Your task to perform on an android device: Go to ESPN.com Image 0: 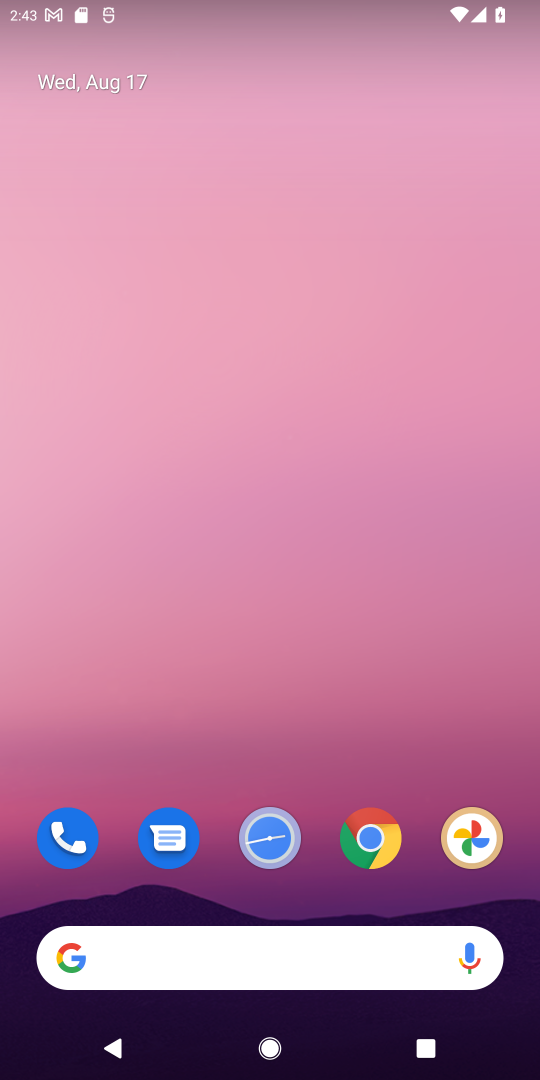
Step 0: click (342, 838)
Your task to perform on an android device: Go to ESPN.com Image 1: 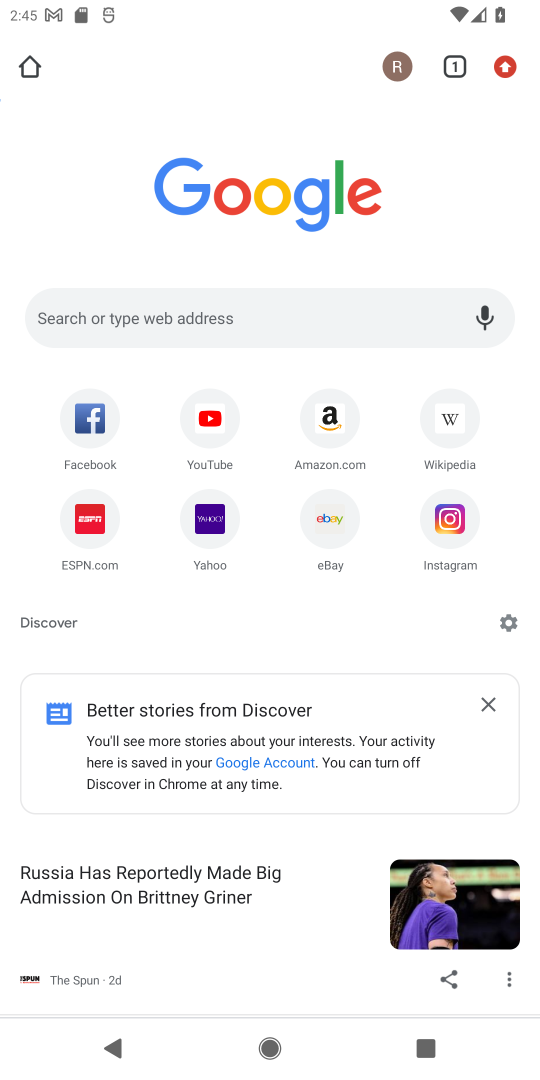
Step 1: click (101, 537)
Your task to perform on an android device: Go to ESPN.com Image 2: 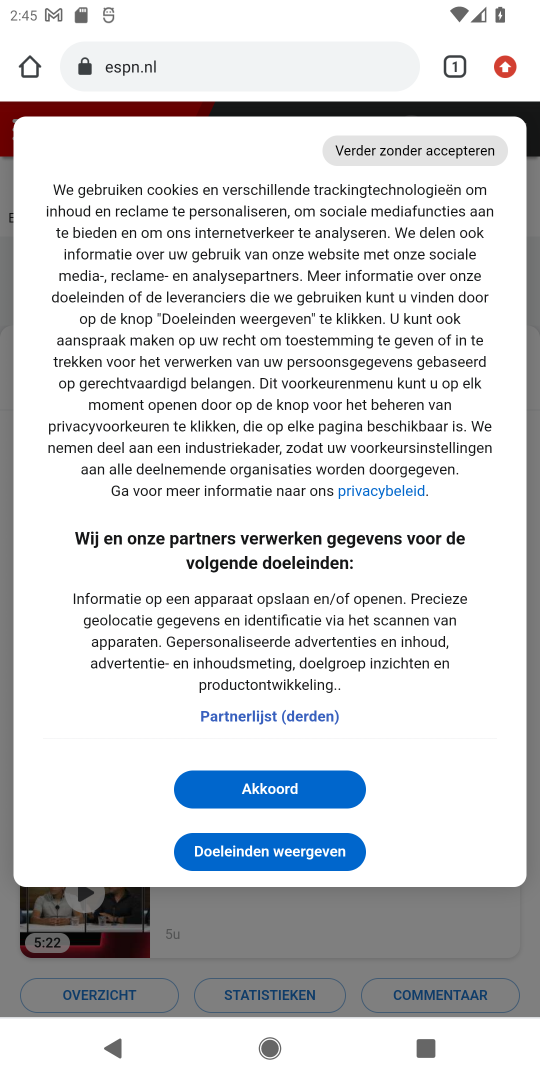
Step 2: task complete